Your task to perform on an android device: Open calendar and show me the first week of next month Image 0: 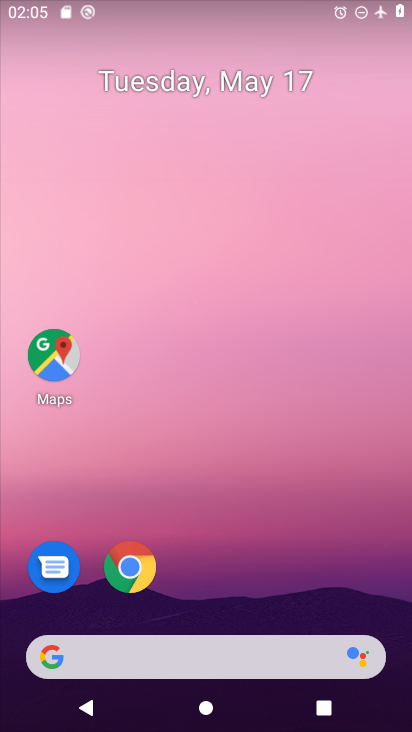
Step 0: drag from (219, 586) to (168, 225)
Your task to perform on an android device: Open calendar and show me the first week of next month Image 1: 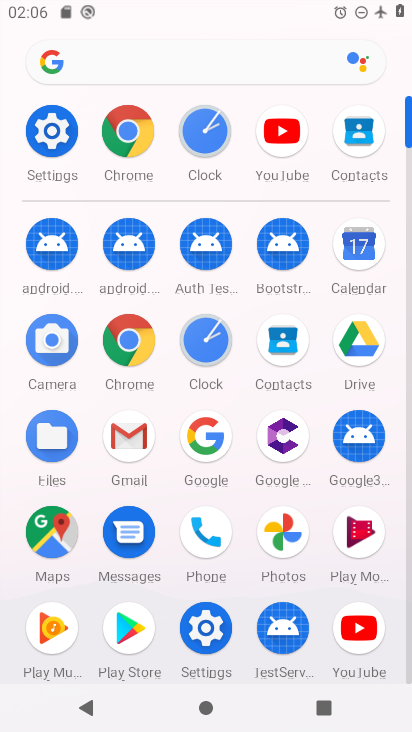
Step 1: click (352, 240)
Your task to perform on an android device: Open calendar and show me the first week of next month Image 2: 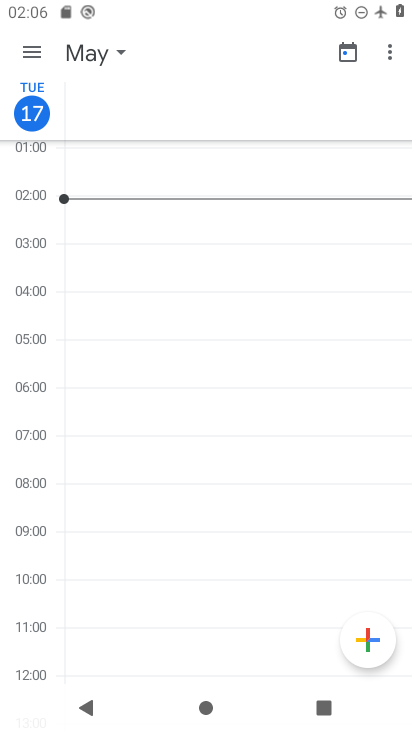
Step 2: click (20, 44)
Your task to perform on an android device: Open calendar and show me the first week of next month Image 3: 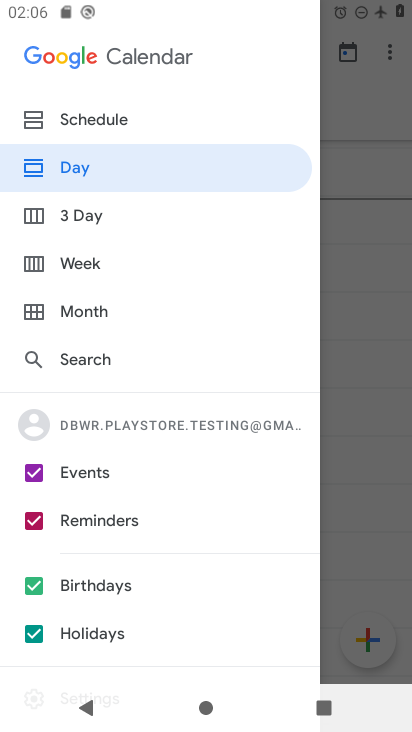
Step 3: click (78, 261)
Your task to perform on an android device: Open calendar and show me the first week of next month Image 4: 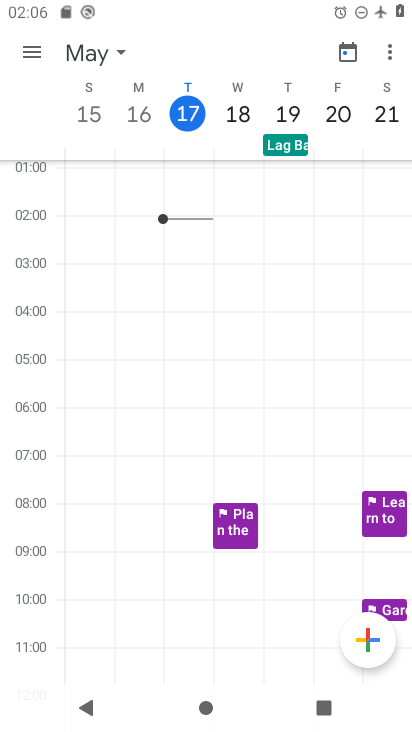
Step 4: click (121, 50)
Your task to perform on an android device: Open calendar and show me the first week of next month Image 5: 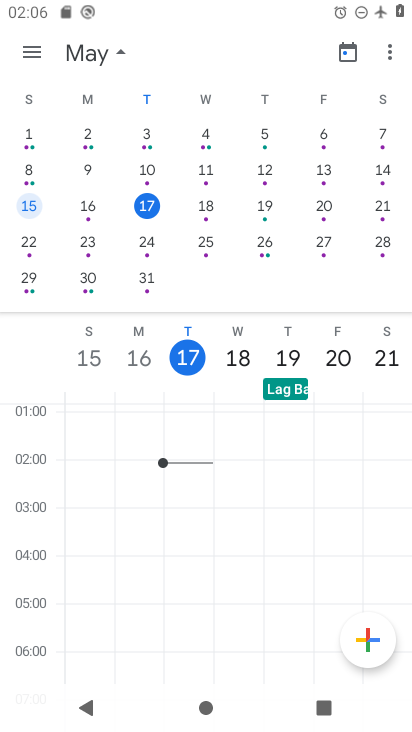
Step 5: task complete